Your task to perform on an android device: change keyboard looks Image 0: 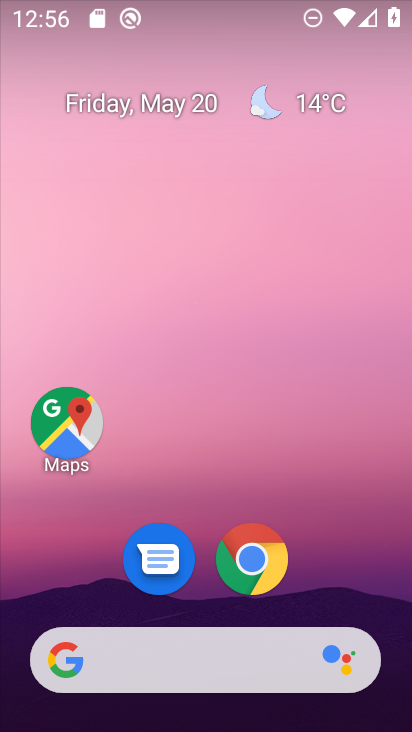
Step 0: drag from (344, 494) to (323, 153)
Your task to perform on an android device: change keyboard looks Image 1: 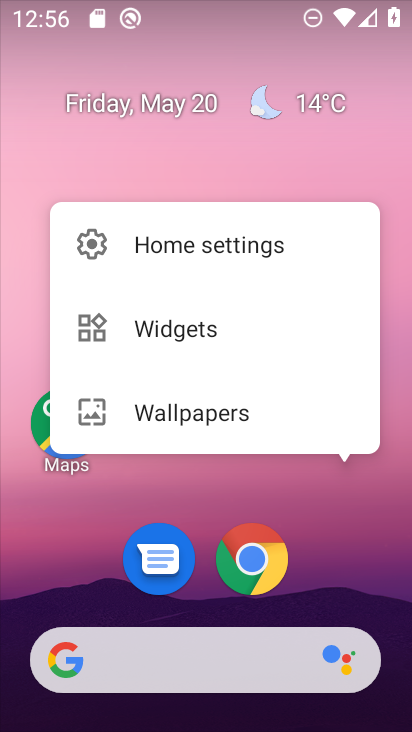
Step 1: click (370, 500)
Your task to perform on an android device: change keyboard looks Image 2: 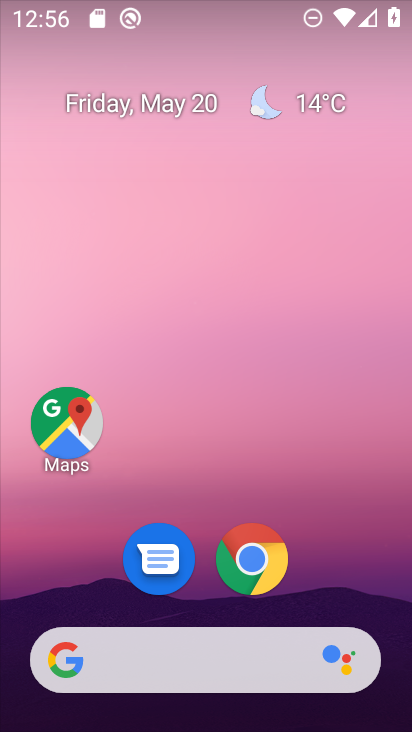
Step 2: drag from (370, 500) to (402, 88)
Your task to perform on an android device: change keyboard looks Image 3: 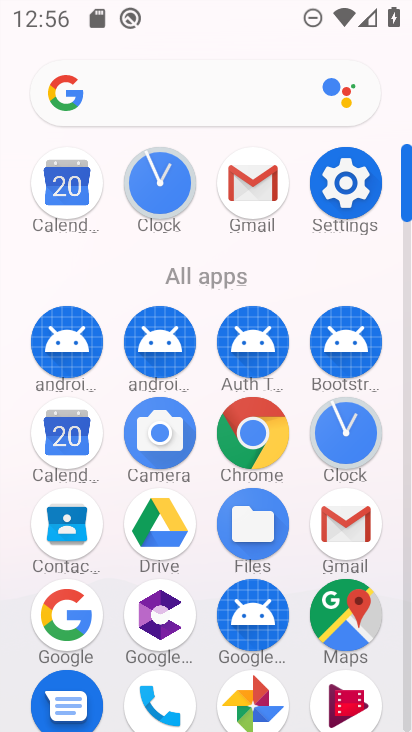
Step 3: click (352, 225)
Your task to perform on an android device: change keyboard looks Image 4: 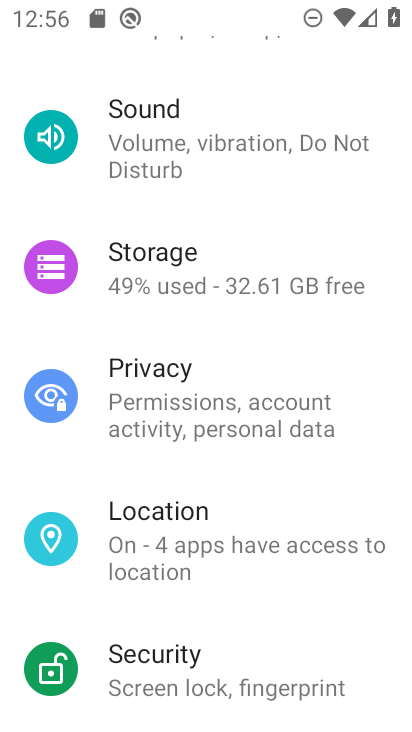
Step 4: drag from (194, 583) to (230, 346)
Your task to perform on an android device: change keyboard looks Image 5: 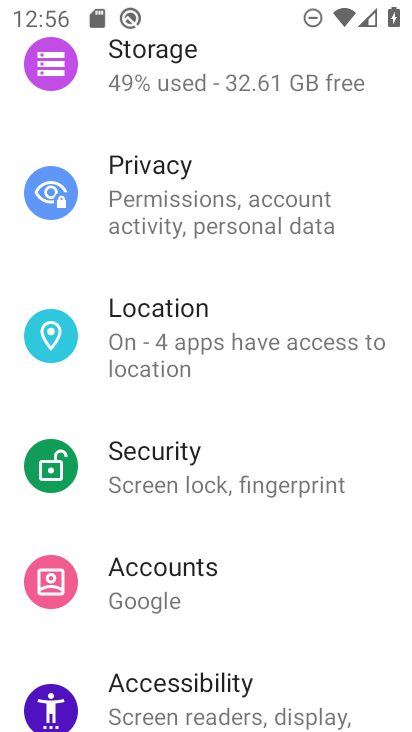
Step 5: drag from (251, 613) to (270, 364)
Your task to perform on an android device: change keyboard looks Image 6: 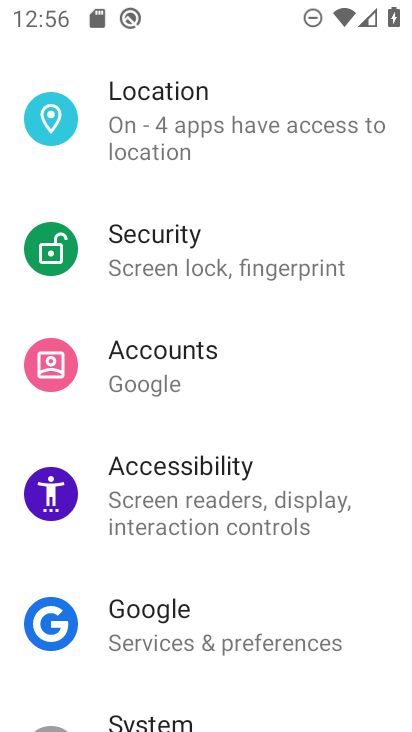
Step 6: drag from (288, 601) to (293, 314)
Your task to perform on an android device: change keyboard looks Image 7: 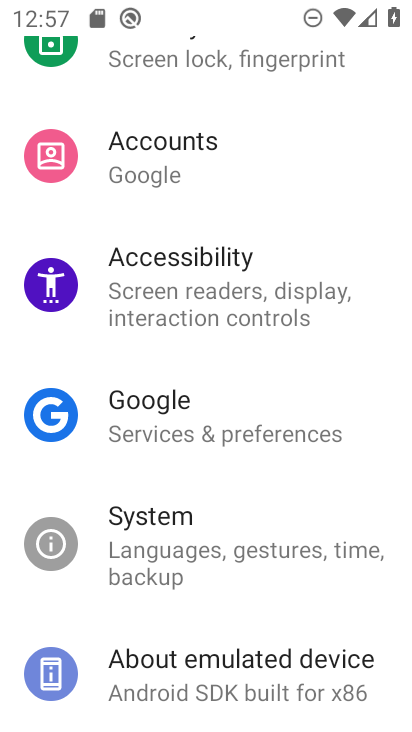
Step 7: click (232, 568)
Your task to perform on an android device: change keyboard looks Image 8: 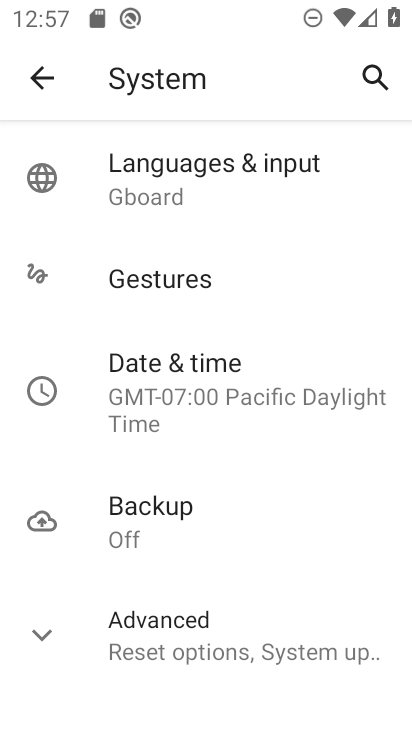
Step 8: click (168, 209)
Your task to perform on an android device: change keyboard looks Image 9: 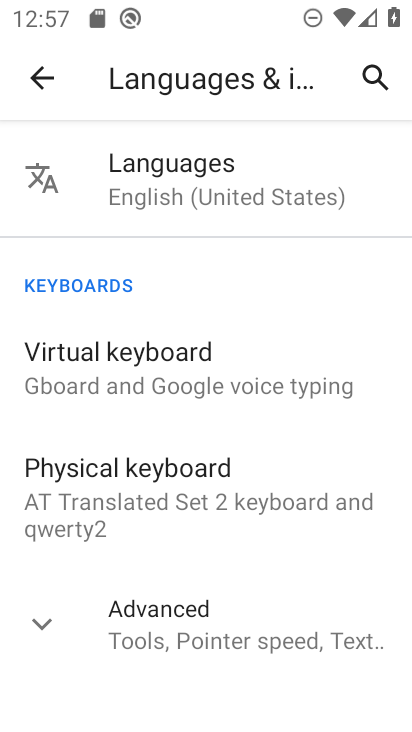
Step 9: click (143, 205)
Your task to perform on an android device: change keyboard looks Image 10: 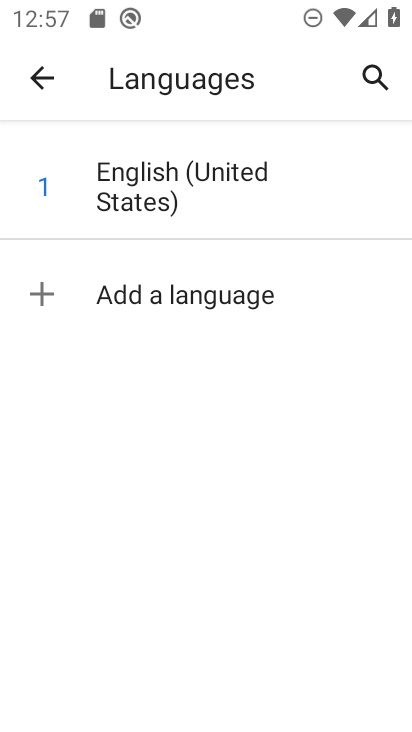
Step 10: click (143, 205)
Your task to perform on an android device: change keyboard looks Image 11: 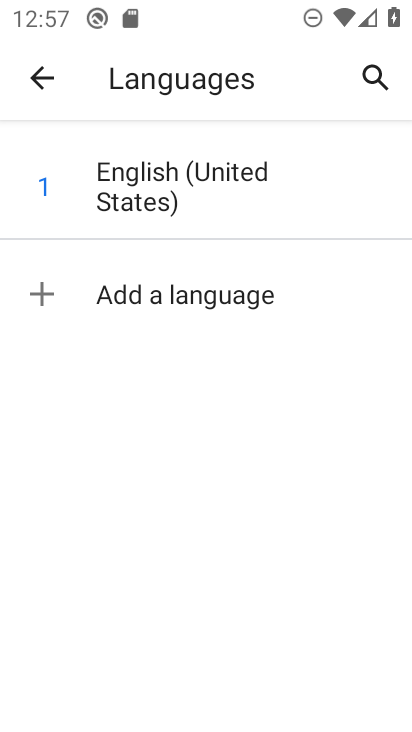
Step 11: task complete